Your task to perform on an android device: check storage Image 0: 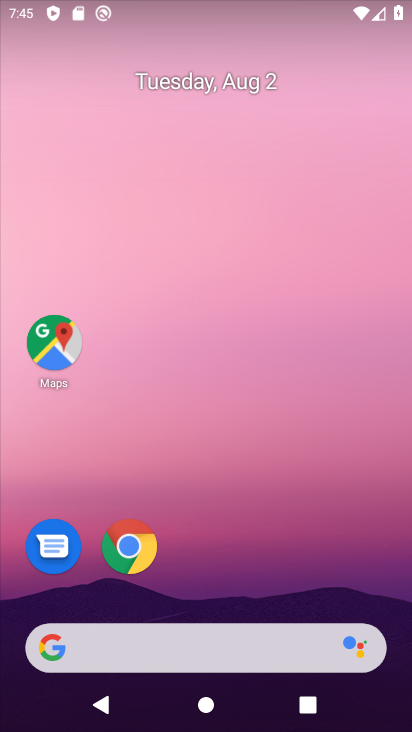
Step 0: click (217, 26)
Your task to perform on an android device: check storage Image 1: 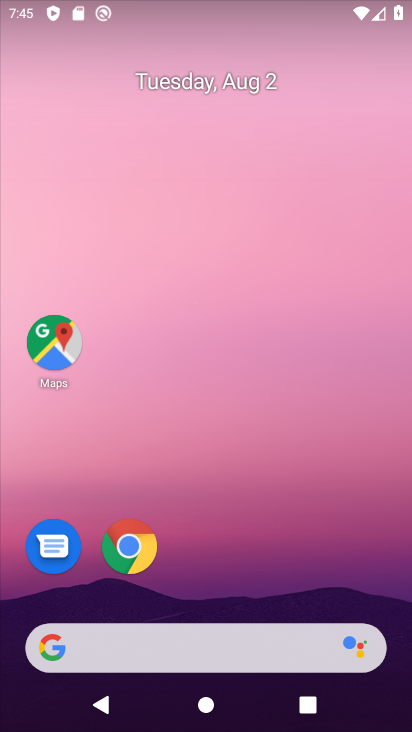
Step 1: drag from (216, 596) to (249, 314)
Your task to perform on an android device: check storage Image 2: 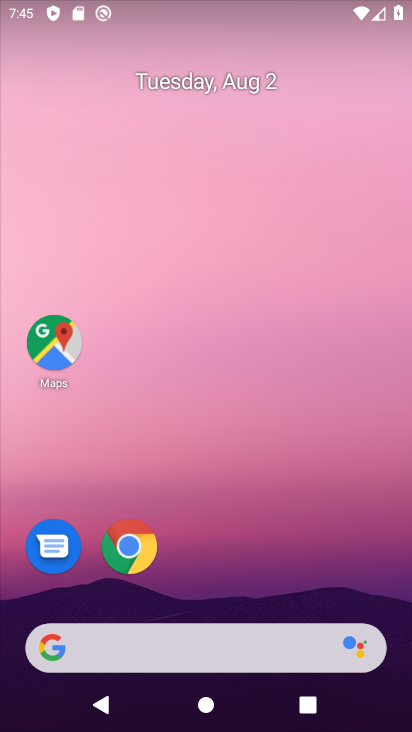
Step 2: drag from (240, 589) to (252, 39)
Your task to perform on an android device: check storage Image 3: 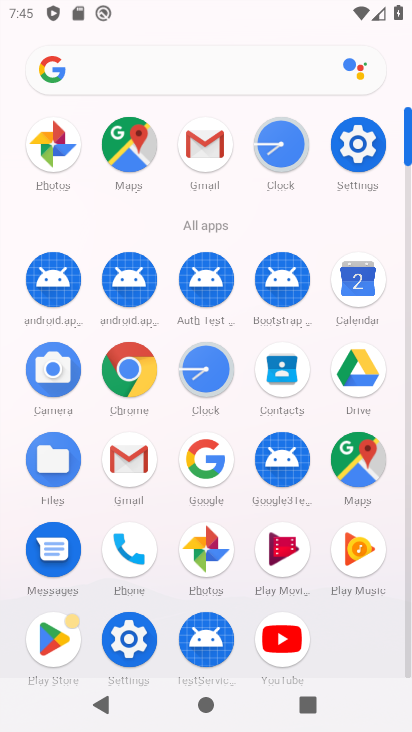
Step 3: click (365, 169)
Your task to perform on an android device: check storage Image 4: 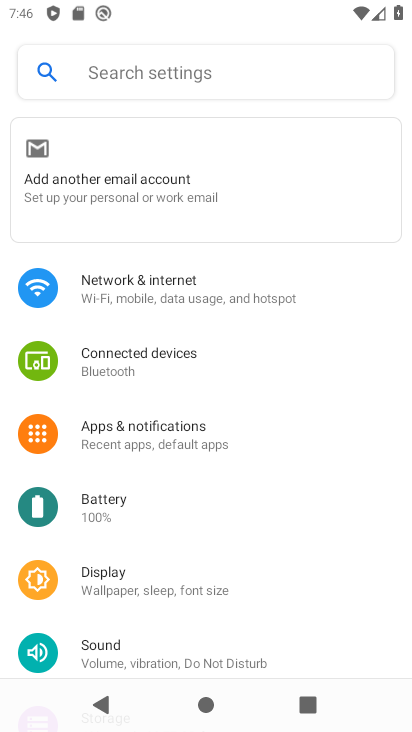
Step 4: drag from (189, 564) to (181, 367)
Your task to perform on an android device: check storage Image 5: 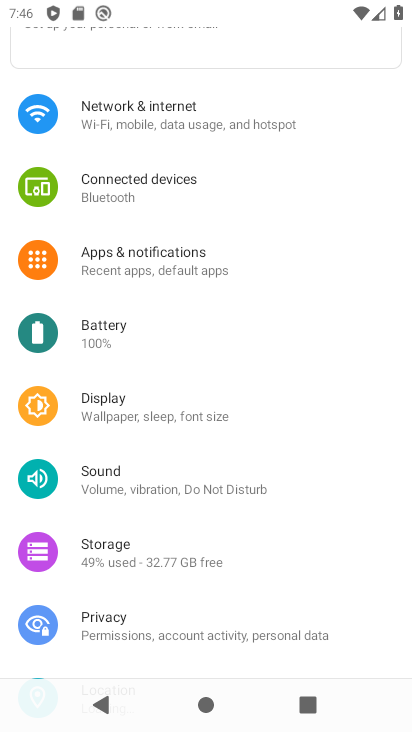
Step 5: click (127, 561)
Your task to perform on an android device: check storage Image 6: 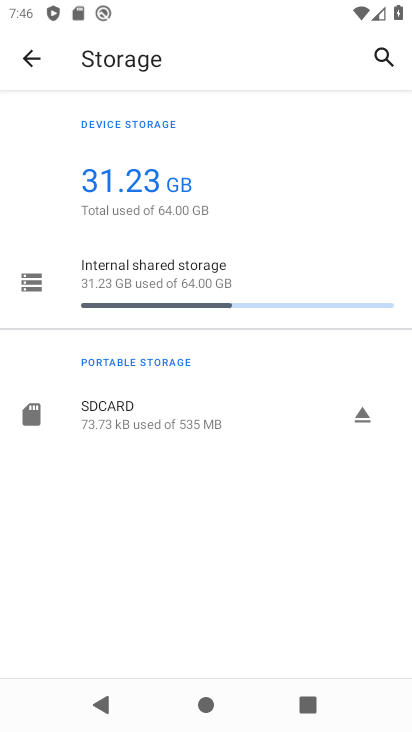
Step 6: click (161, 276)
Your task to perform on an android device: check storage Image 7: 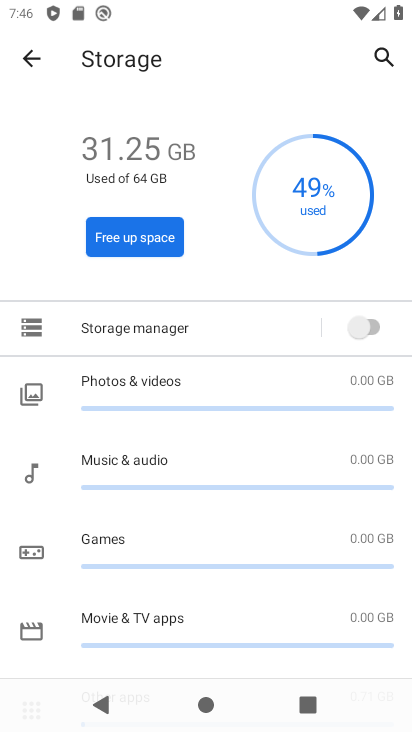
Step 7: task complete